Your task to perform on an android device: visit the assistant section in the google photos Image 0: 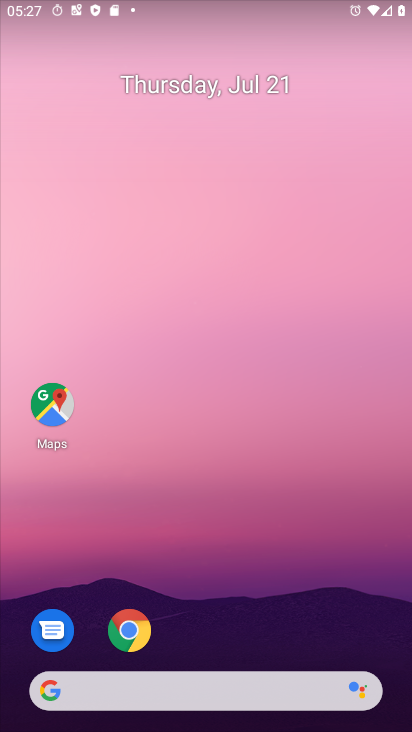
Step 0: drag from (190, 689) to (252, 55)
Your task to perform on an android device: visit the assistant section in the google photos Image 1: 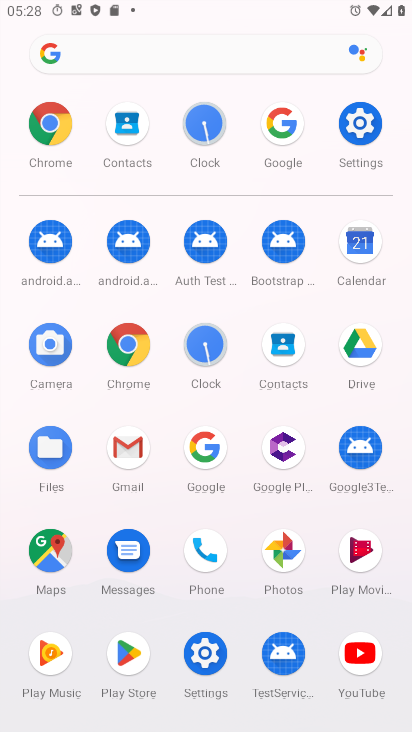
Step 1: click (281, 548)
Your task to perform on an android device: visit the assistant section in the google photos Image 2: 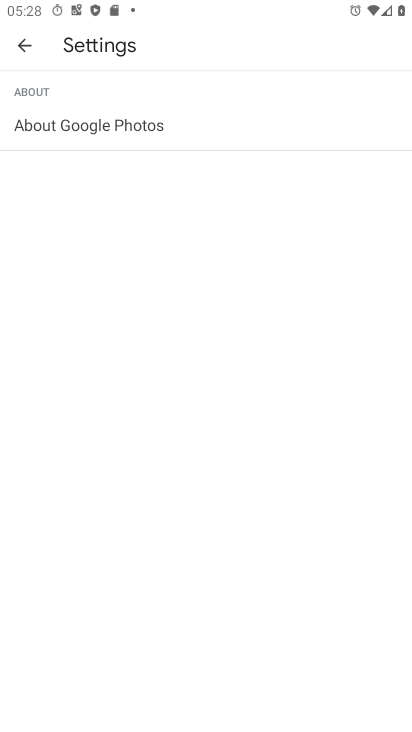
Step 2: press back button
Your task to perform on an android device: visit the assistant section in the google photos Image 3: 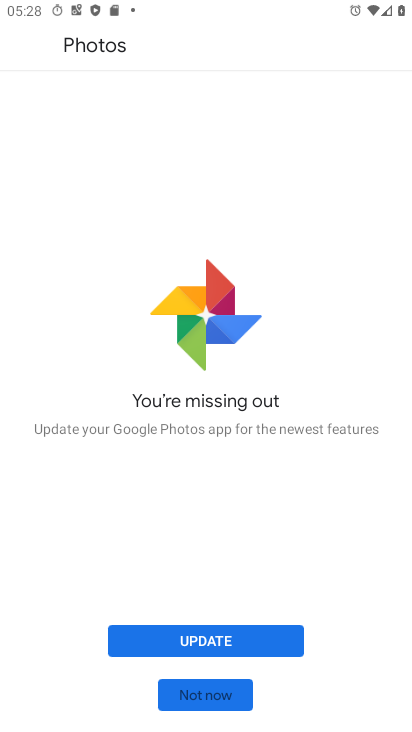
Step 3: click (200, 637)
Your task to perform on an android device: visit the assistant section in the google photos Image 4: 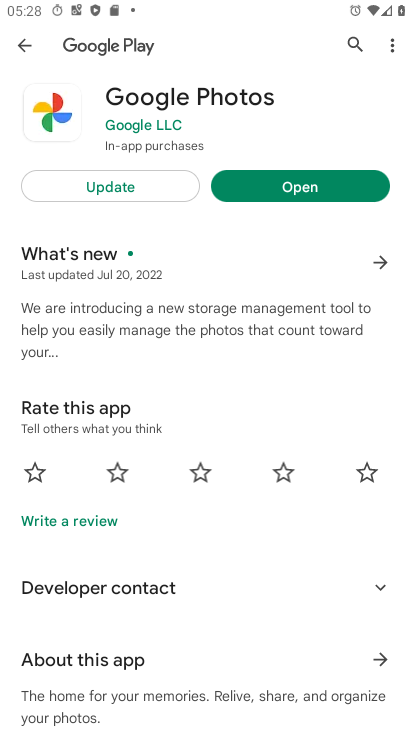
Step 4: click (95, 189)
Your task to perform on an android device: visit the assistant section in the google photos Image 5: 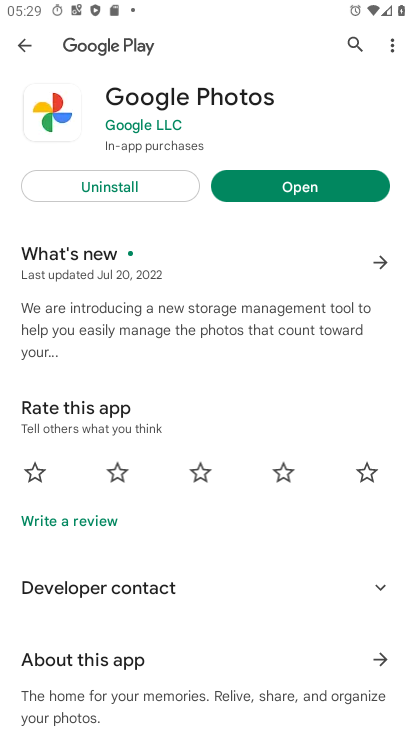
Step 5: click (284, 182)
Your task to perform on an android device: visit the assistant section in the google photos Image 6: 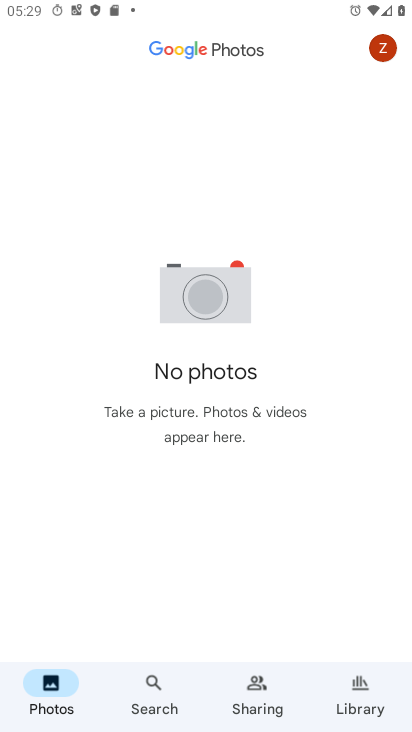
Step 6: click (356, 687)
Your task to perform on an android device: visit the assistant section in the google photos Image 7: 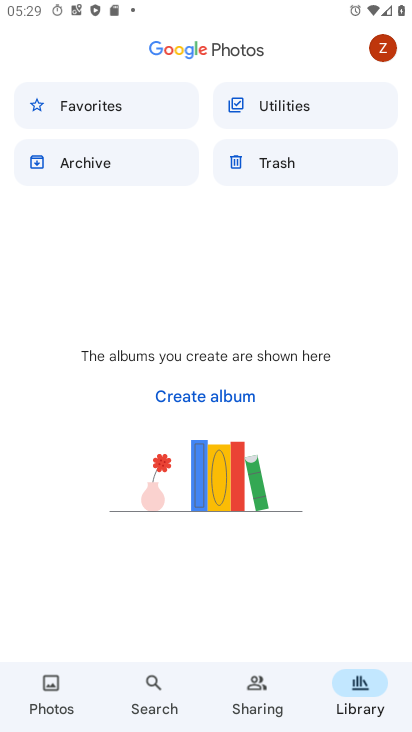
Step 7: click (281, 99)
Your task to perform on an android device: visit the assistant section in the google photos Image 8: 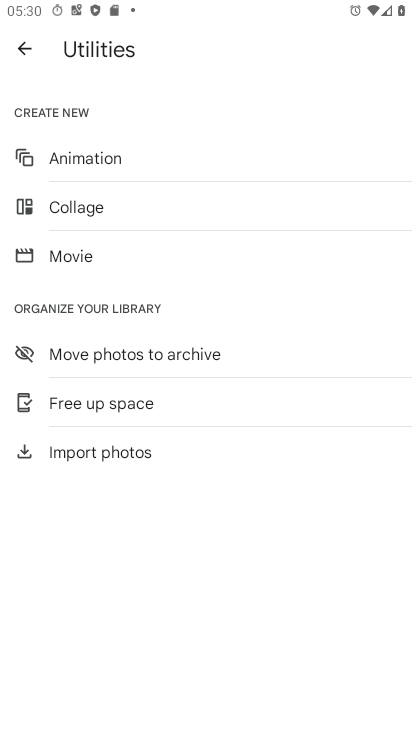
Step 8: task complete